Your task to perform on an android device: check google app version Image 0: 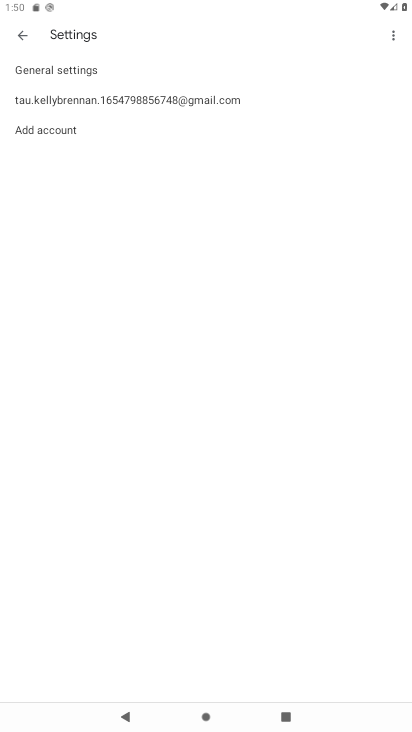
Step 0: press home button
Your task to perform on an android device: check google app version Image 1: 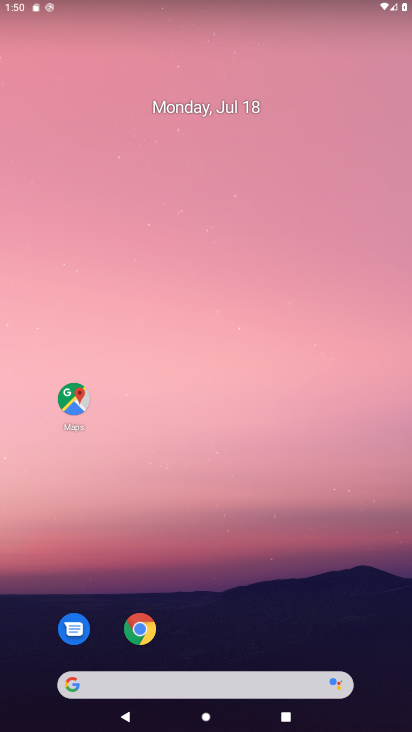
Step 1: drag from (200, 623) to (197, 152)
Your task to perform on an android device: check google app version Image 2: 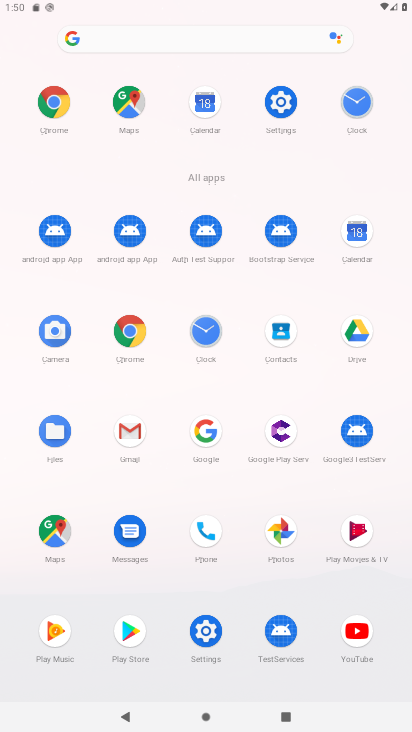
Step 2: click (211, 436)
Your task to perform on an android device: check google app version Image 3: 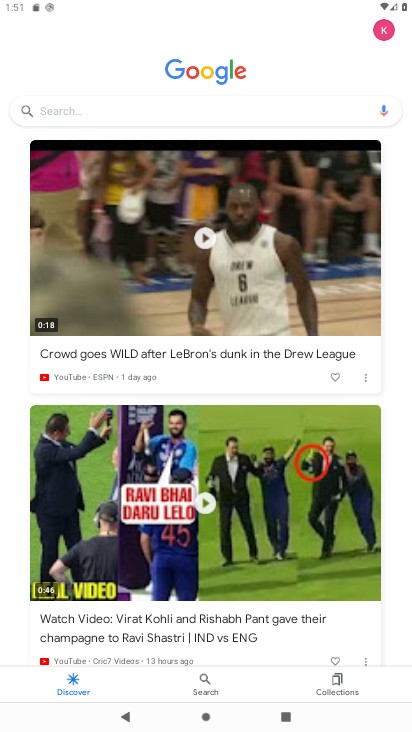
Step 3: click (377, 29)
Your task to perform on an android device: check google app version Image 4: 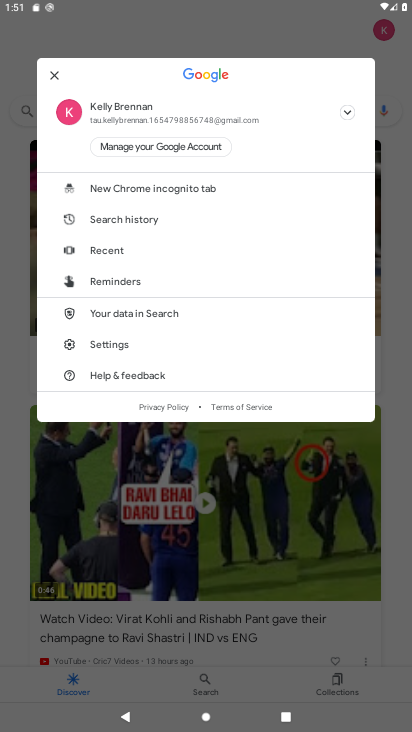
Step 4: click (112, 340)
Your task to perform on an android device: check google app version Image 5: 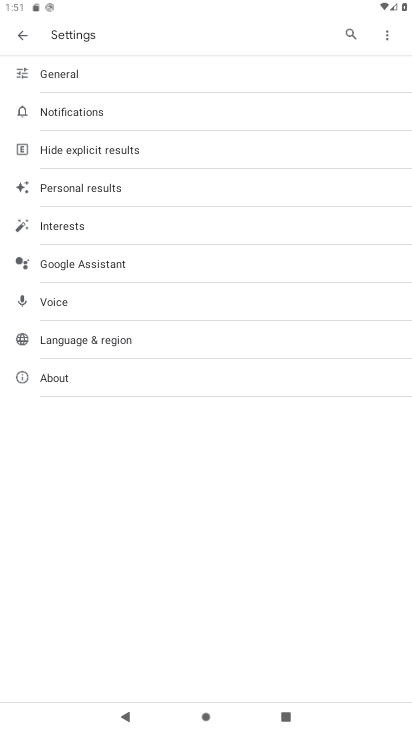
Step 5: click (72, 373)
Your task to perform on an android device: check google app version Image 6: 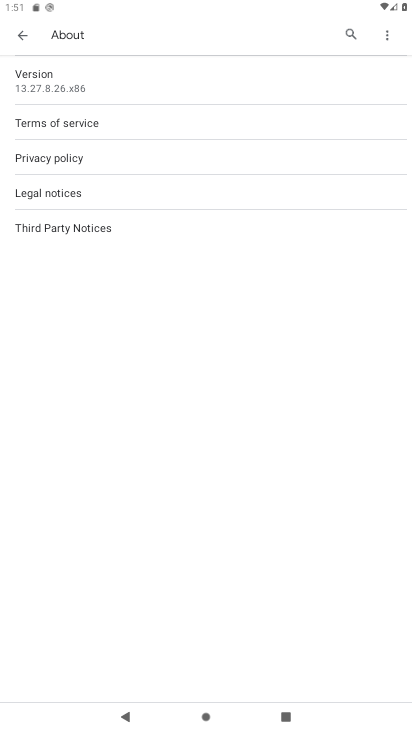
Step 6: task complete